Your task to perform on an android device: Go to CNN.com Image 0: 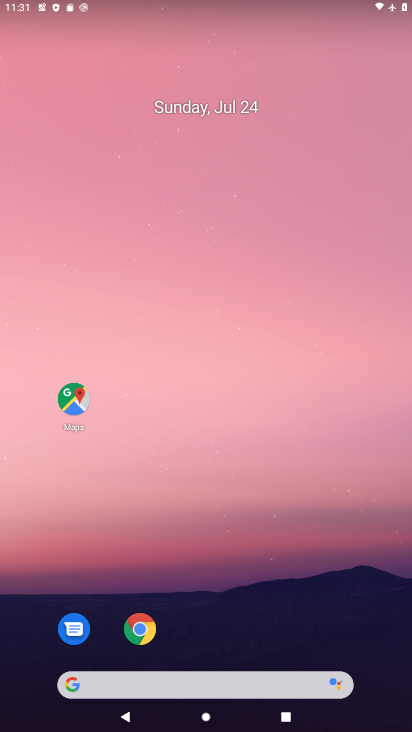
Step 0: click (190, 679)
Your task to perform on an android device: Go to CNN.com Image 1: 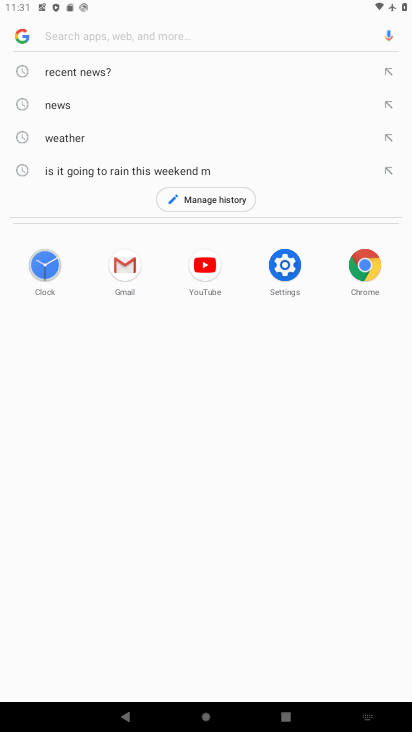
Step 1: type "cnn.com"
Your task to perform on an android device: Go to CNN.com Image 2: 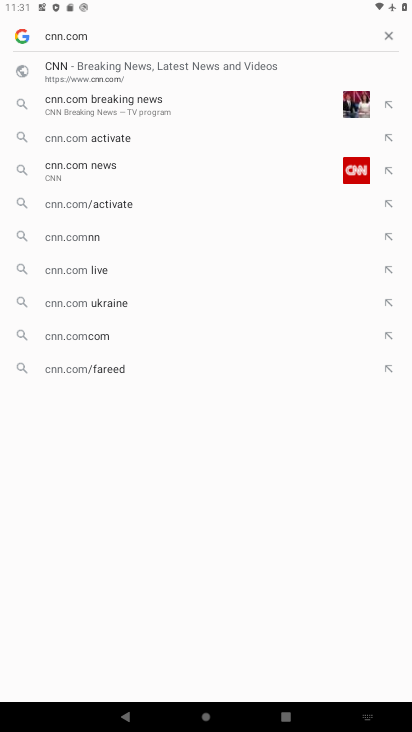
Step 2: click (190, 83)
Your task to perform on an android device: Go to CNN.com Image 3: 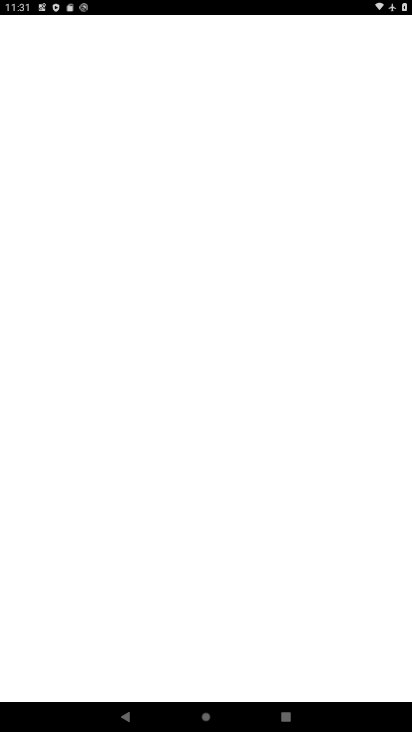
Step 3: task complete